Your task to perform on an android device: Open Google Chrome and open the bookmarks view Image 0: 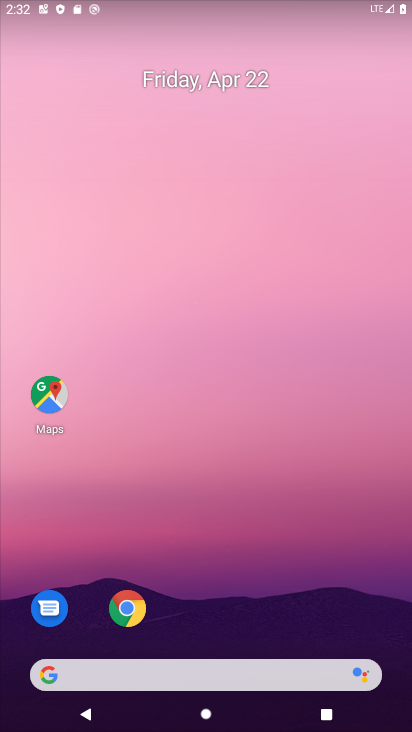
Step 0: drag from (231, 694) to (264, 199)
Your task to perform on an android device: Open Google Chrome and open the bookmarks view Image 1: 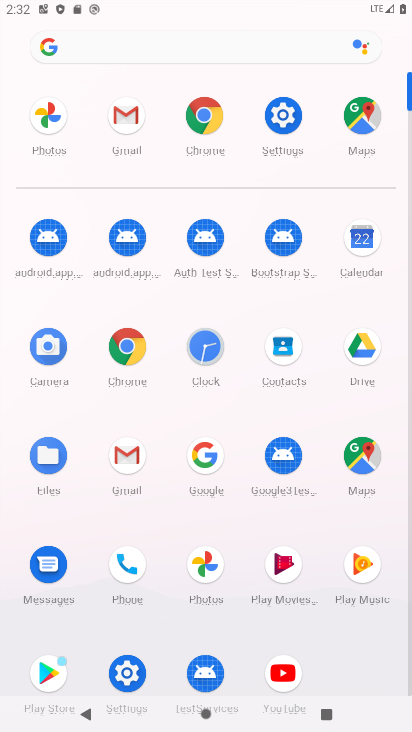
Step 1: click (195, 118)
Your task to perform on an android device: Open Google Chrome and open the bookmarks view Image 2: 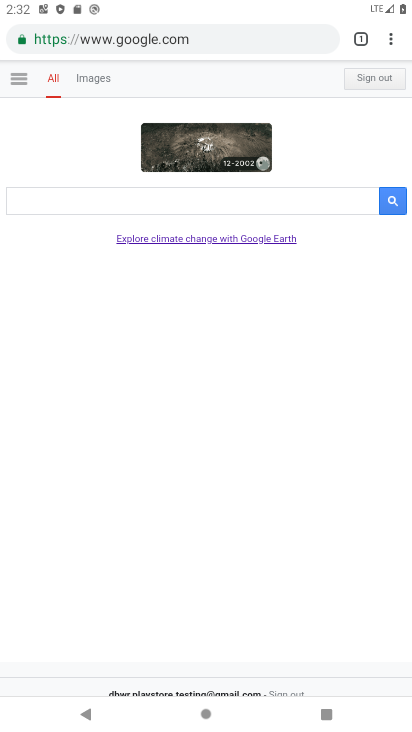
Step 2: click (387, 43)
Your task to perform on an android device: Open Google Chrome and open the bookmarks view Image 3: 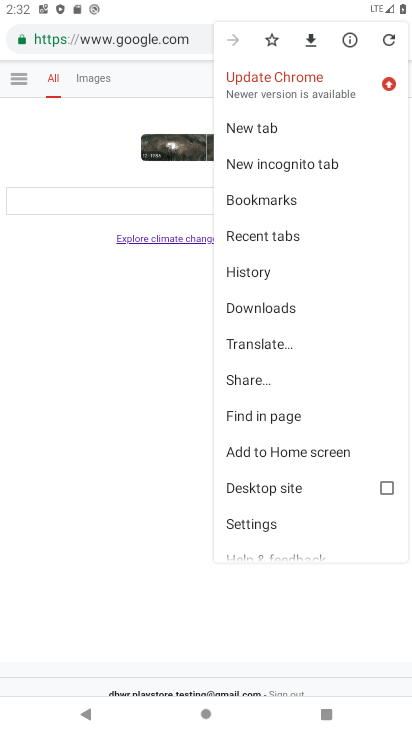
Step 3: click (279, 196)
Your task to perform on an android device: Open Google Chrome and open the bookmarks view Image 4: 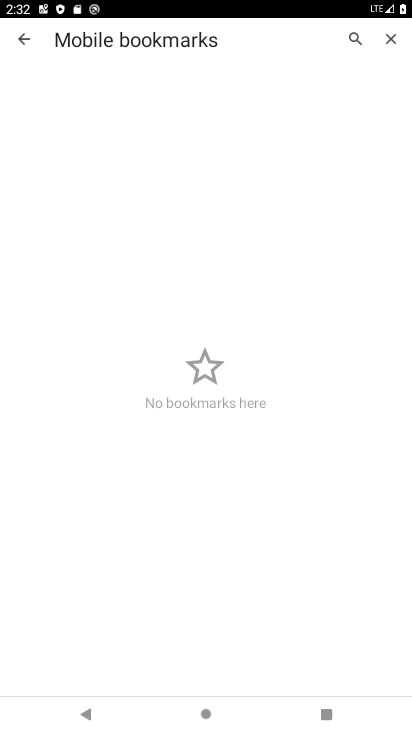
Step 4: task complete